Your task to perform on an android device: turn off wifi Image 0: 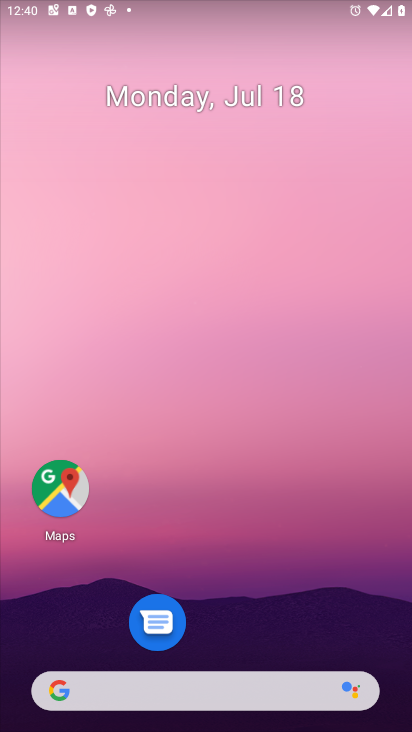
Step 0: drag from (127, 708) to (315, 129)
Your task to perform on an android device: turn off wifi Image 1: 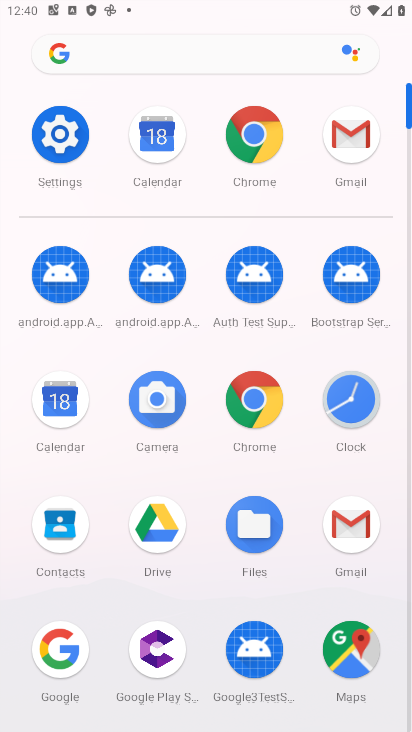
Step 1: click (68, 132)
Your task to perform on an android device: turn off wifi Image 2: 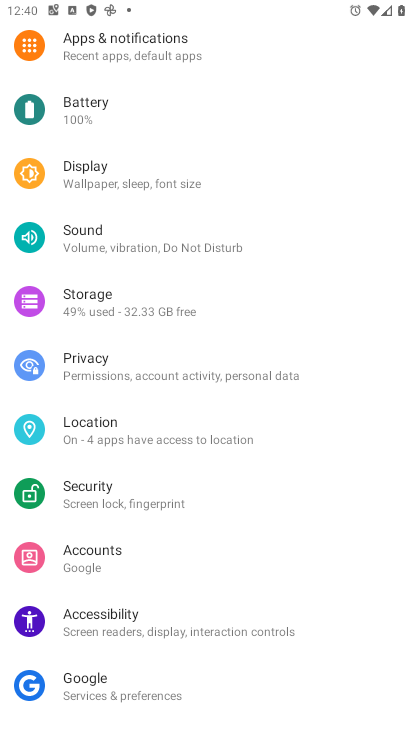
Step 2: drag from (330, 175) to (303, 721)
Your task to perform on an android device: turn off wifi Image 3: 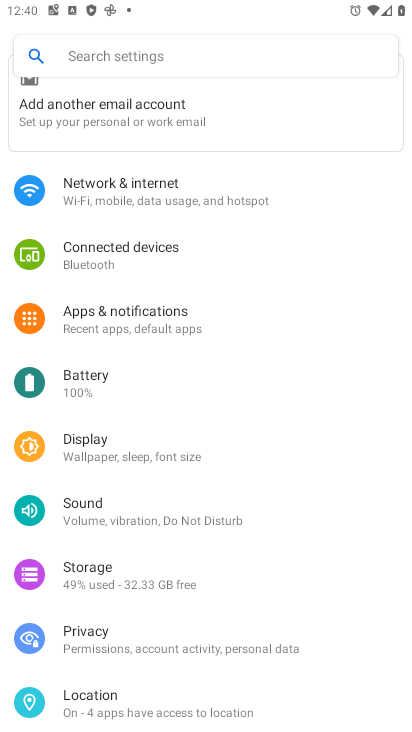
Step 3: click (203, 196)
Your task to perform on an android device: turn off wifi Image 4: 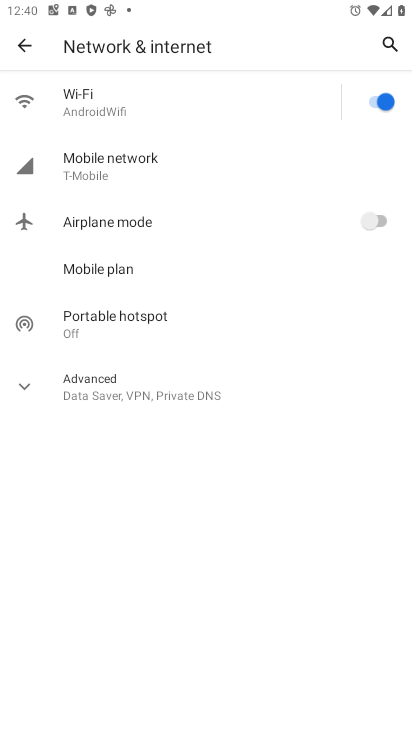
Step 4: click (386, 100)
Your task to perform on an android device: turn off wifi Image 5: 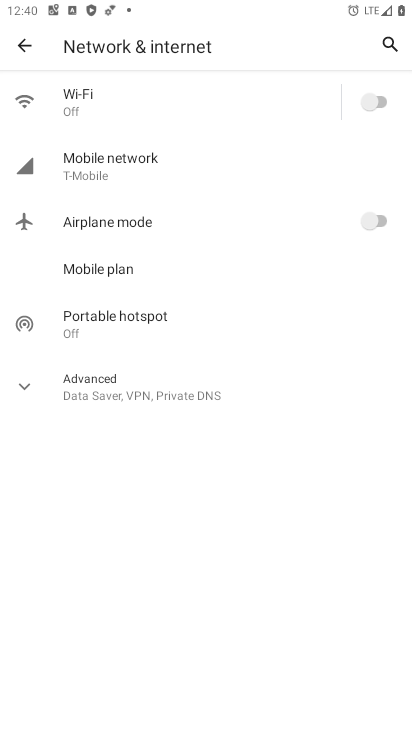
Step 5: task complete